Your task to perform on an android device: change the clock display to analog Image 0: 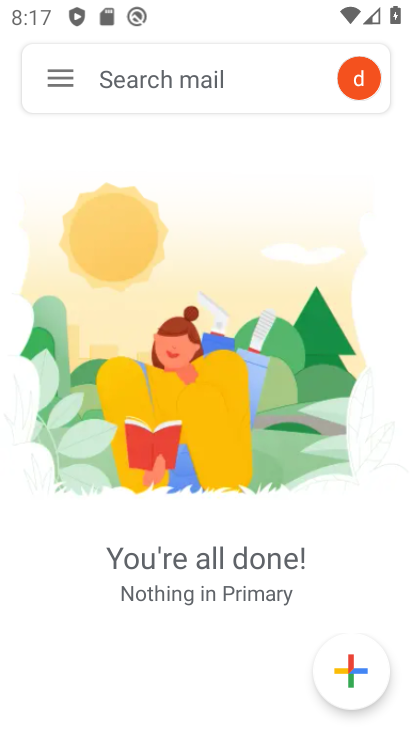
Step 0: press home button
Your task to perform on an android device: change the clock display to analog Image 1: 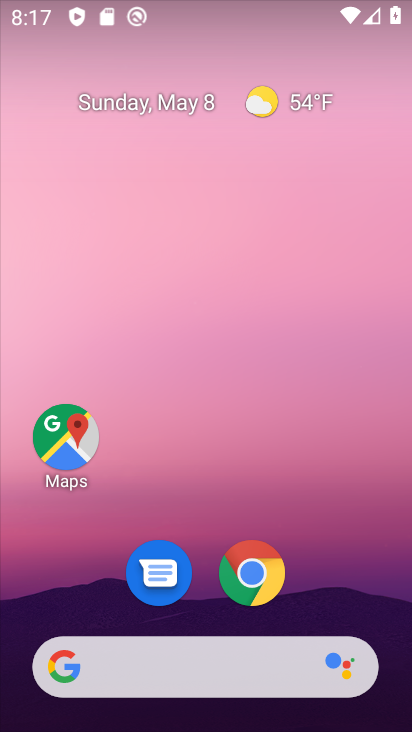
Step 1: drag from (206, 719) to (212, 227)
Your task to perform on an android device: change the clock display to analog Image 2: 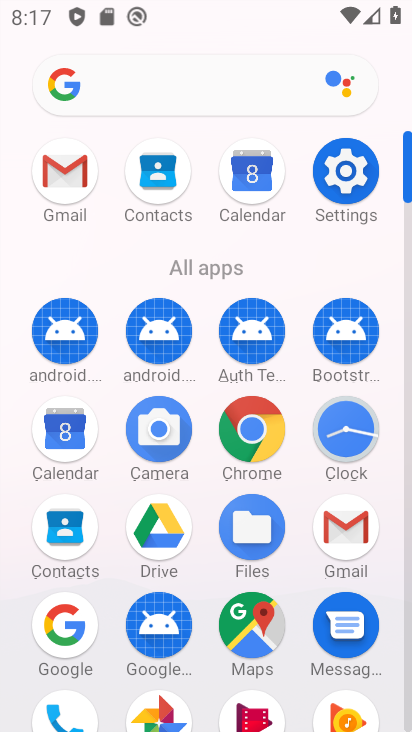
Step 2: click (339, 431)
Your task to perform on an android device: change the clock display to analog Image 3: 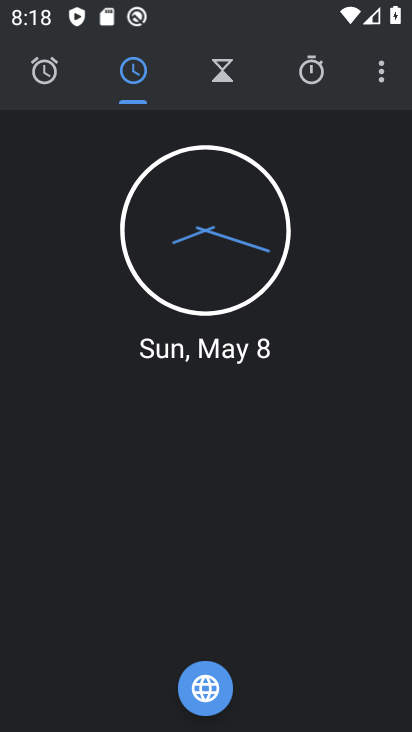
Step 3: click (381, 71)
Your task to perform on an android device: change the clock display to analog Image 4: 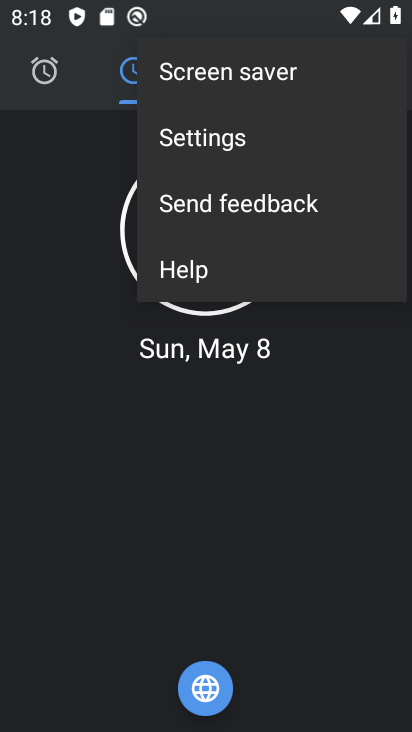
Step 4: click (197, 140)
Your task to perform on an android device: change the clock display to analog Image 5: 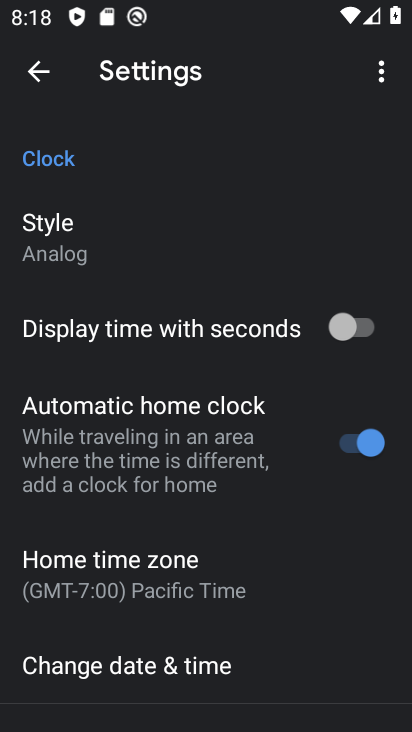
Step 5: task complete